Your task to perform on an android device: turn on airplane mode Image 0: 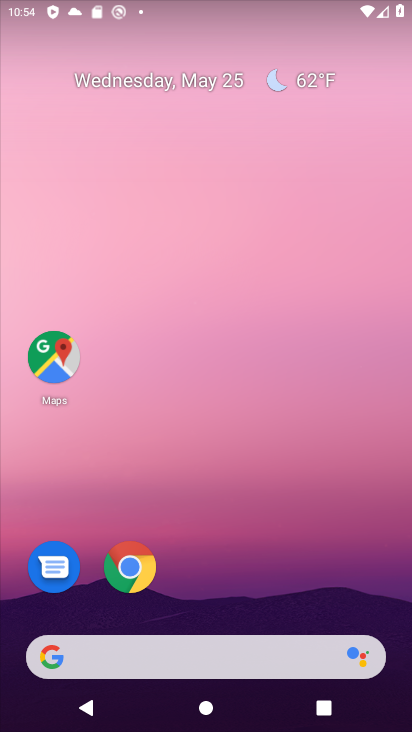
Step 0: drag from (364, 569) to (336, 140)
Your task to perform on an android device: turn on airplane mode Image 1: 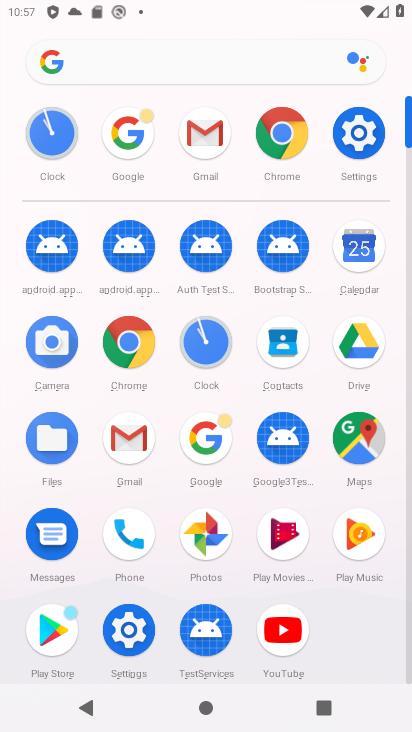
Step 1: drag from (253, 1) to (241, 511)
Your task to perform on an android device: turn on airplane mode Image 2: 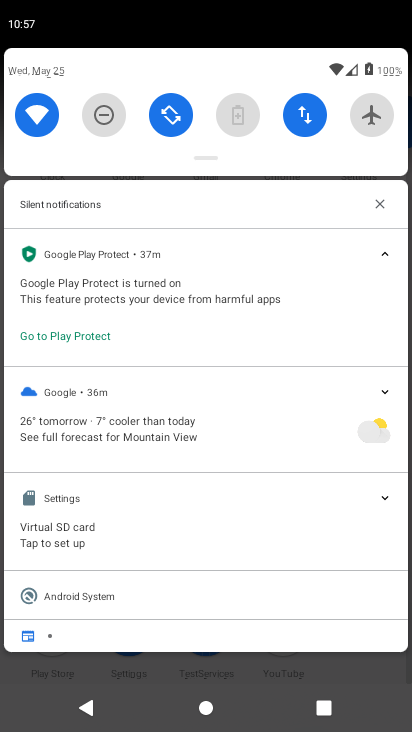
Step 2: click (369, 131)
Your task to perform on an android device: turn on airplane mode Image 3: 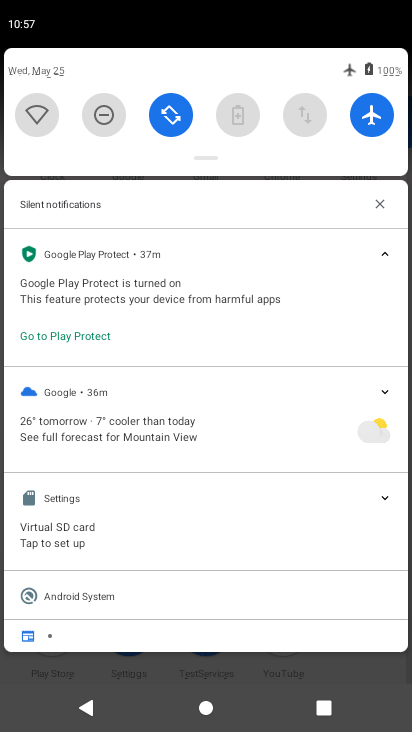
Step 3: task complete